Your task to perform on an android device: turn on priority inbox in the gmail app Image 0: 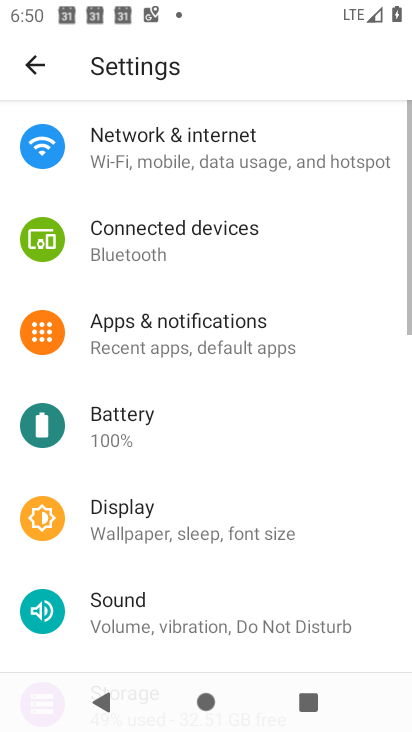
Step 0: press home button
Your task to perform on an android device: turn on priority inbox in the gmail app Image 1: 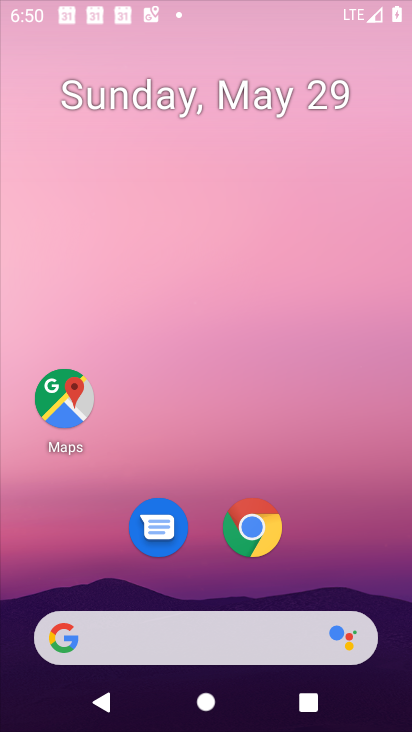
Step 1: drag from (366, 620) to (327, 29)
Your task to perform on an android device: turn on priority inbox in the gmail app Image 2: 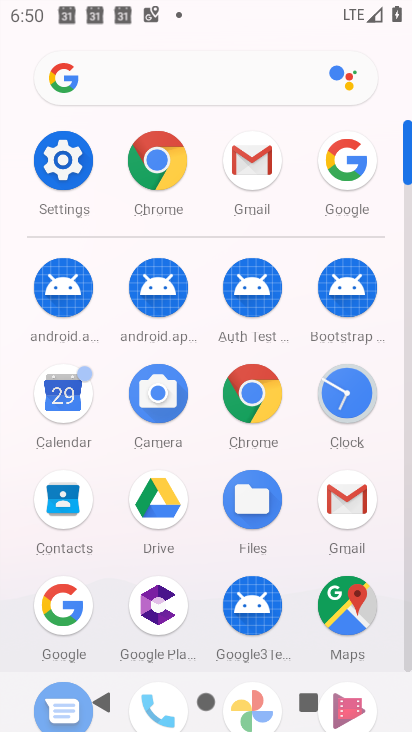
Step 2: click (337, 498)
Your task to perform on an android device: turn on priority inbox in the gmail app Image 3: 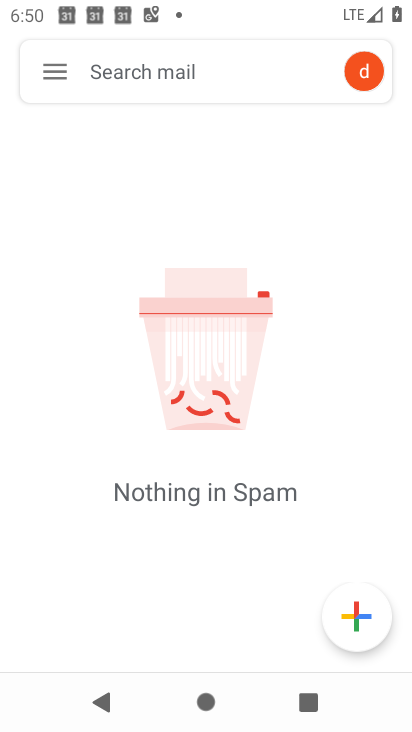
Step 3: click (62, 59)
Your task to perform on an android device: turn on priority inbox in the gmail app Image 4: 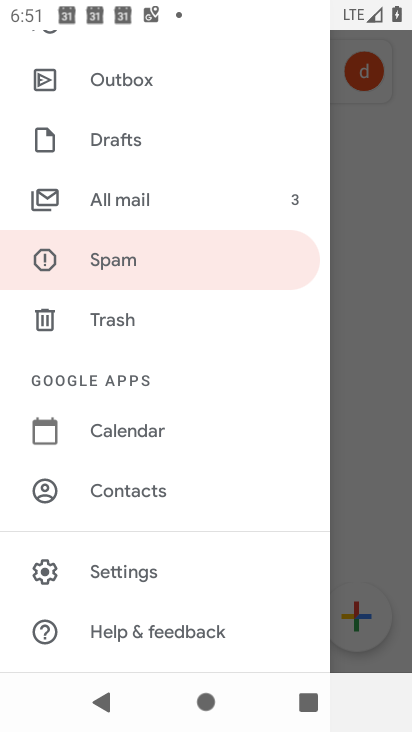
Step 4: click (142, 585)
Your task to perform on an android device: turn on priority inbox in the gmail app Image 5: 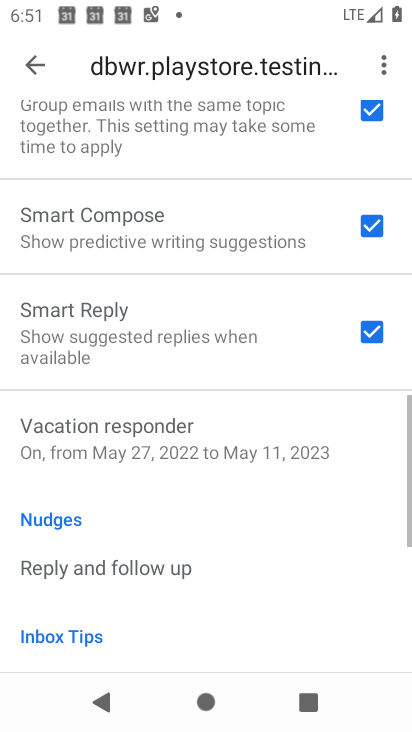
Step 5: drag from (105, 183) to (164, 644)
Your task to perform on an android device: turn on priority inbox in the gmail app Image 6: 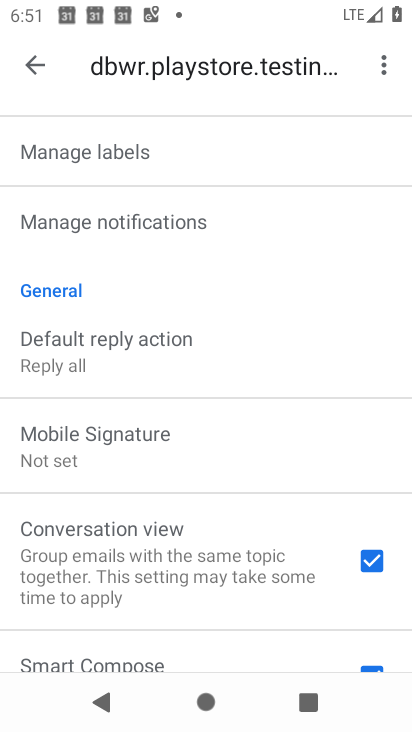
Step 6: drag from (246, 220) to (230, 639)
Your task to perform on an android device: turn on priority inbox in the gmail app Image 7: 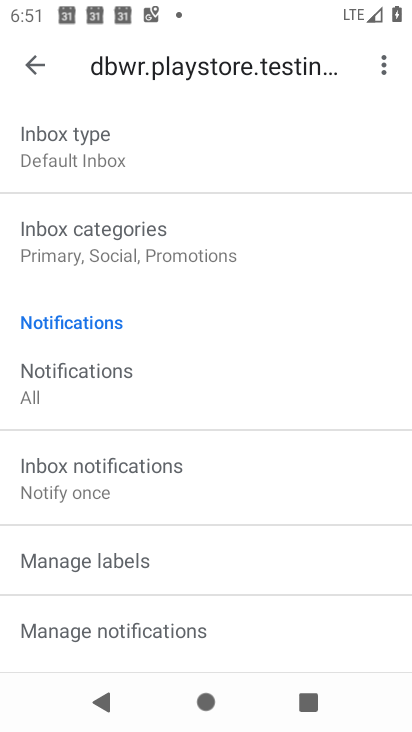
Step 7: drag from (220, 179) to (232, 572)
Your task to perform on an android device: turn on priority inbox in the gmail app Image 8: 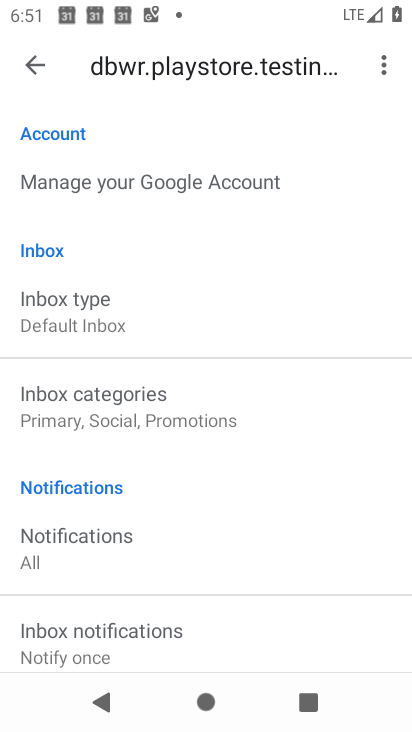
Step 8: click (154, 304)
Your task to perform on an android device: turn on priority inbox in the gmail app Image 9: 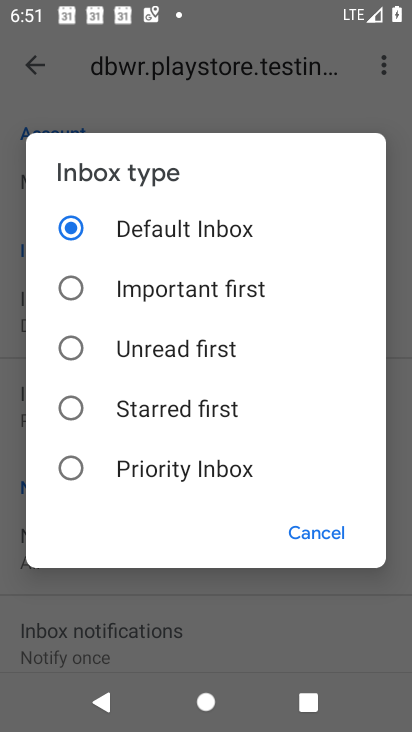
Step 9: click (73, 469)
Your task to perform on an android device: turn on priority inbox in the gmail app Image 10: 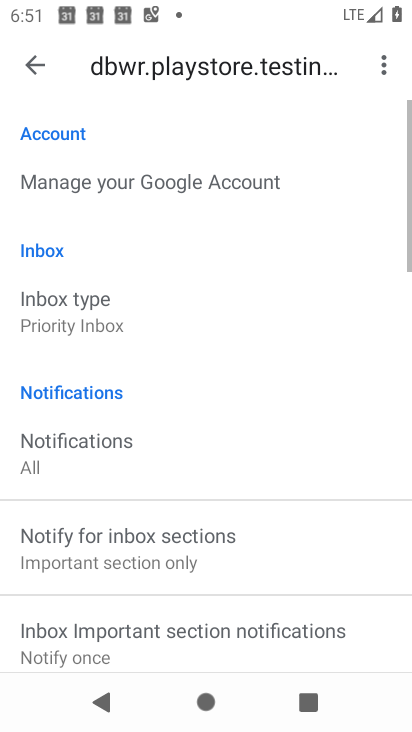
Step 10: task complete